Your task to perform on an android device: Open Amazon Image 0: 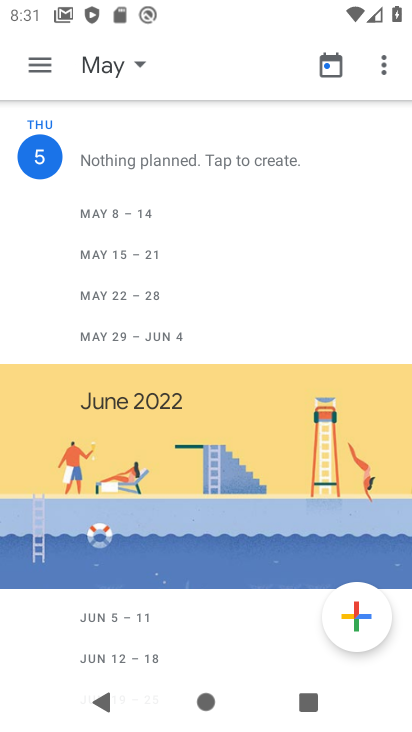
Step 0: press home button
Your task to perform on an android device: Open Amazon Image 1: 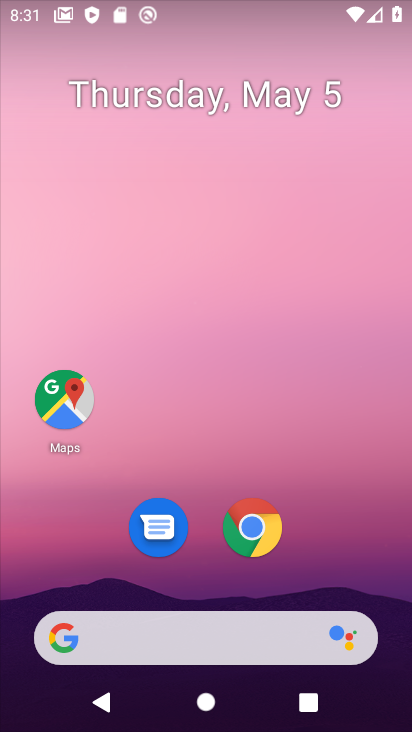
Step 1: drag from (338, 518) to (216, 168)
Your task to perform on an android device: Open Amazon Image 2: 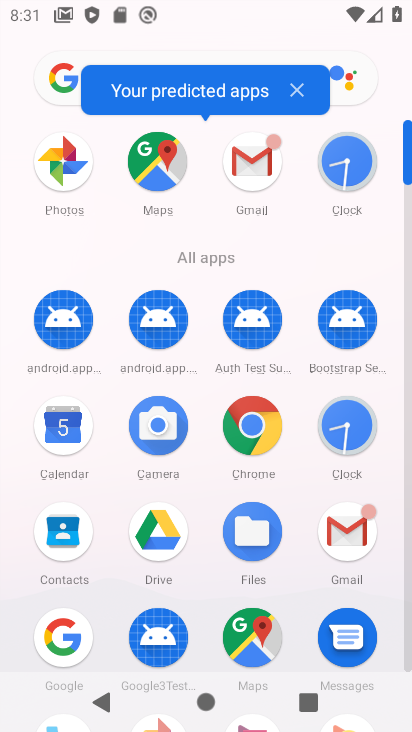
Step 2: click (251, 442)
Your task to perform on an android device: Open Amazon Image 3: 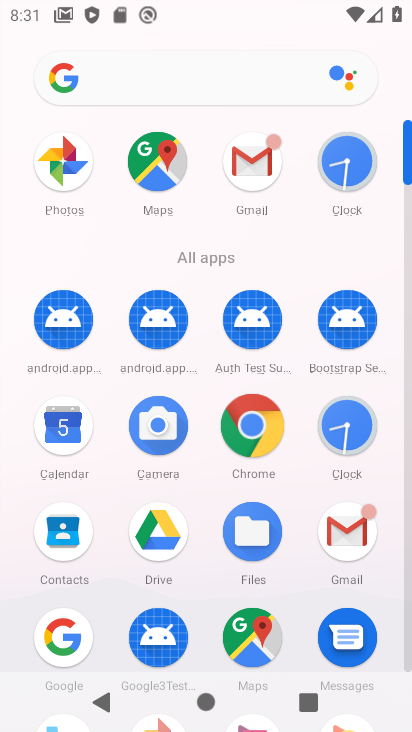
Step 3: click (247, 431)
Your task to perform on an android device: Open Amazon Image 4: 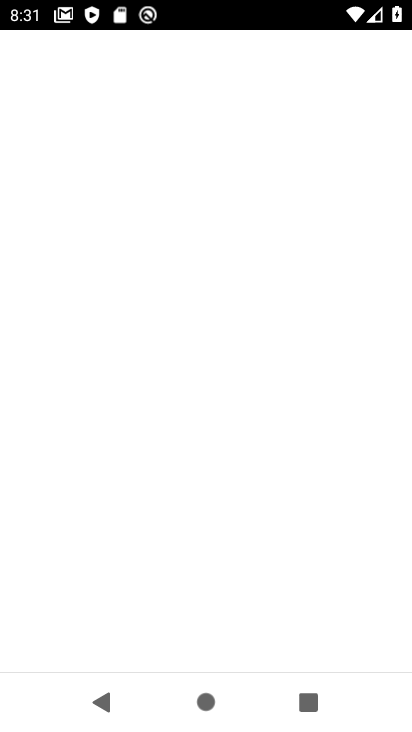
Step 4: click (247, 431)
Your task to perform on an android device: Open Amazon Image 5: 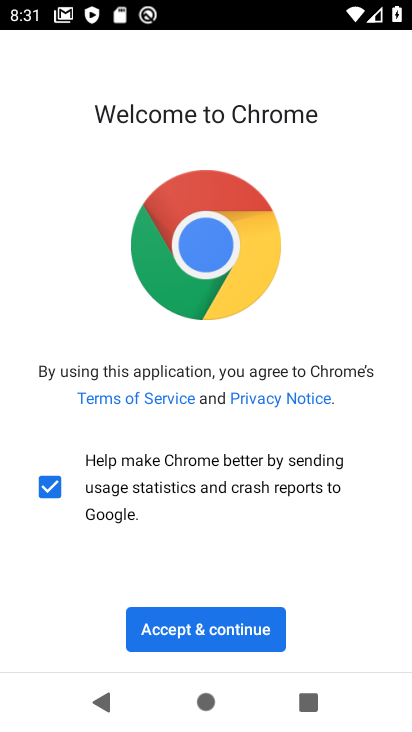
Step 5: click (213, 633)
Your task to perform on an android device: Open Amazon Image 6: 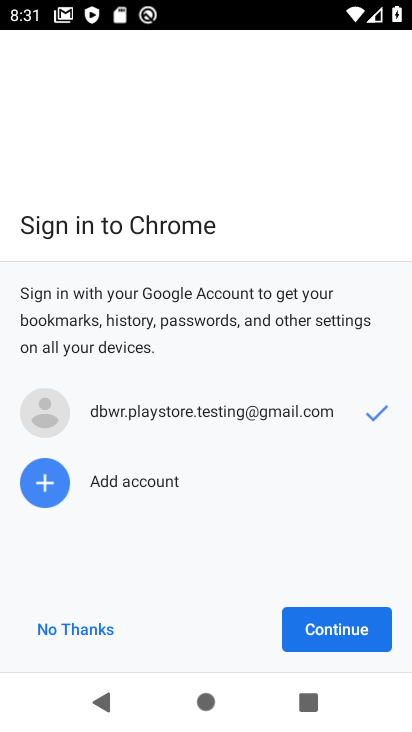
Step 6: click (337, 633)
Your task to perform on an android device: Open Amazon Image 7: 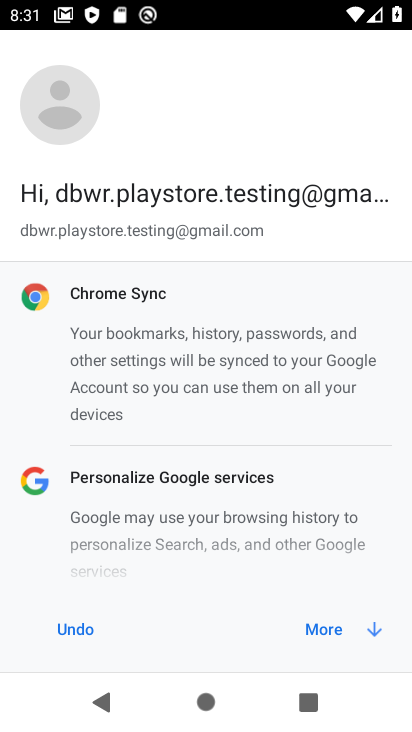
Step 7: click (334, 623)
Your task to perform on an android device: Open Amazon Image 8: 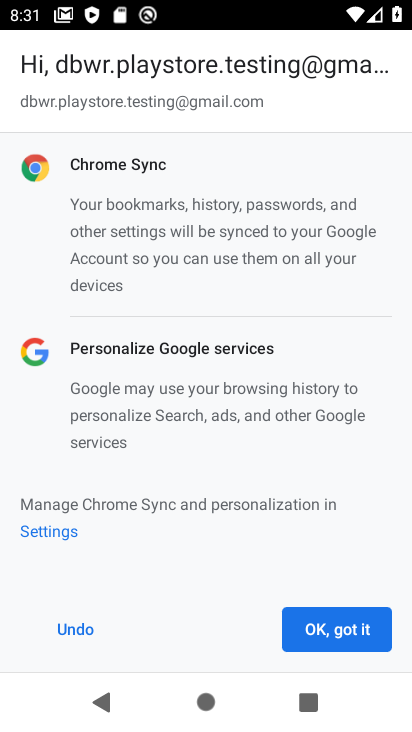
Step 8: click (334, 630)
Your task to perform on an android device: Open Amazon Image 9: 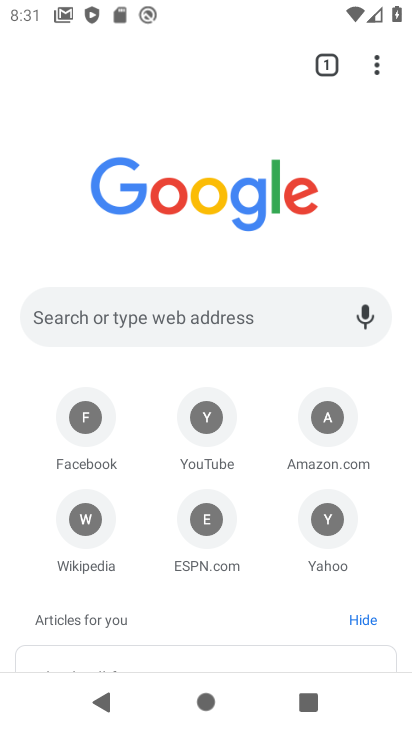
Step 9: click (316, 426)
Your task to perform on an android device: Open Amazon Image 10: 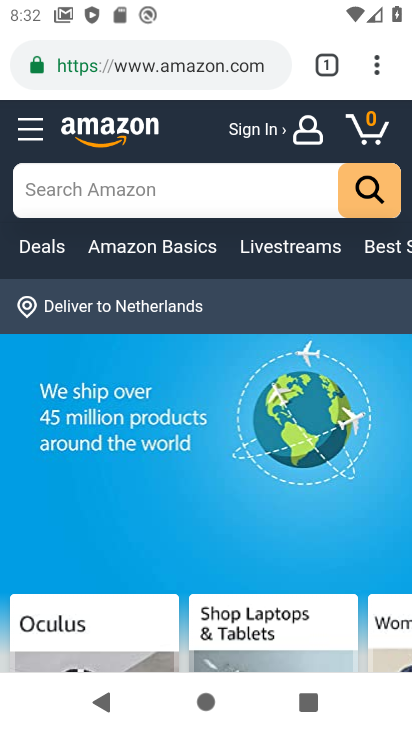
Step 10: task complete